Your task to perform on an android device: choose inbox layout in the gmail app Image 0: 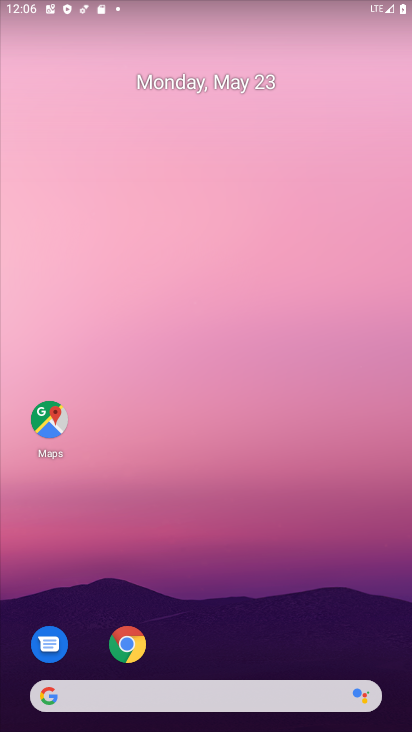
Step 0: drag from (361, 648) to (346, 76)
Your task to perform on an android device: choose inbox layout in the gmail app Image 1: 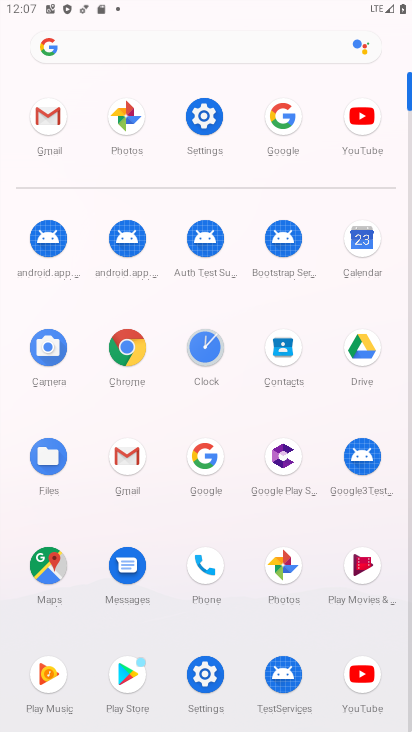
Step 1: click (139, 450)
Your task to perform on an android device: choose inbox layout in the gmail app Image 2: 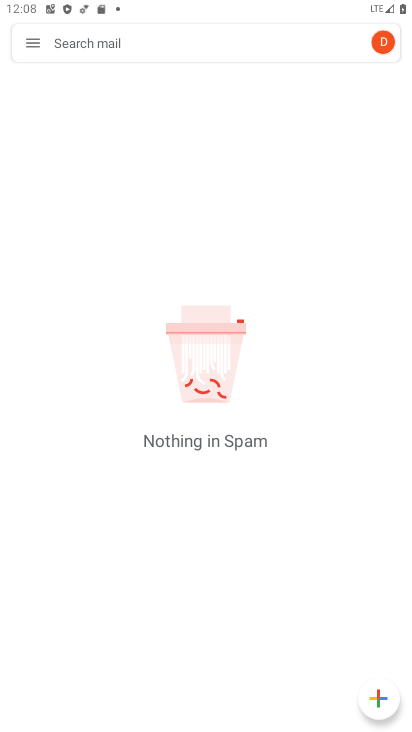
Step 2: task complete